Your task to perform on an android device: change timer sound Image 0: 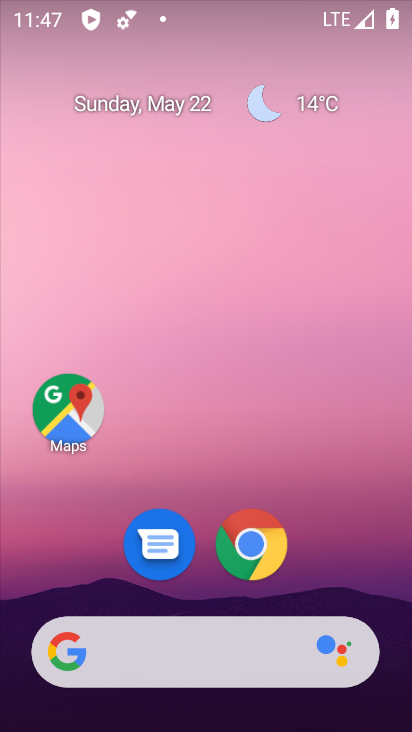
Step 0: drag from (318, 572) to (247, 43)
Your task to perform on an android device: change timer sound Image 1: 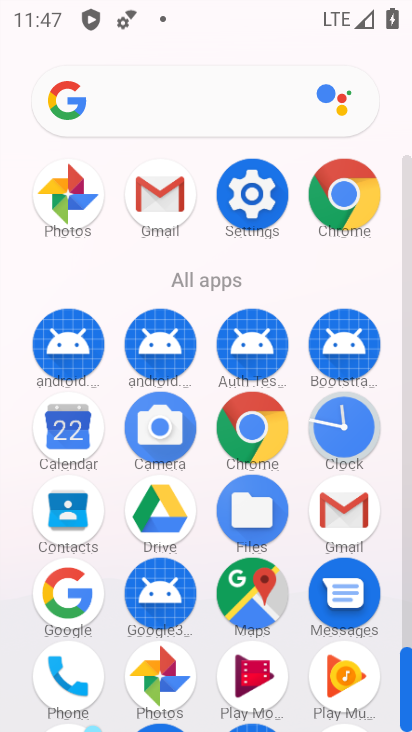
Step 1: press home button
Your task to perform on an android device: change timer sound Image 2: 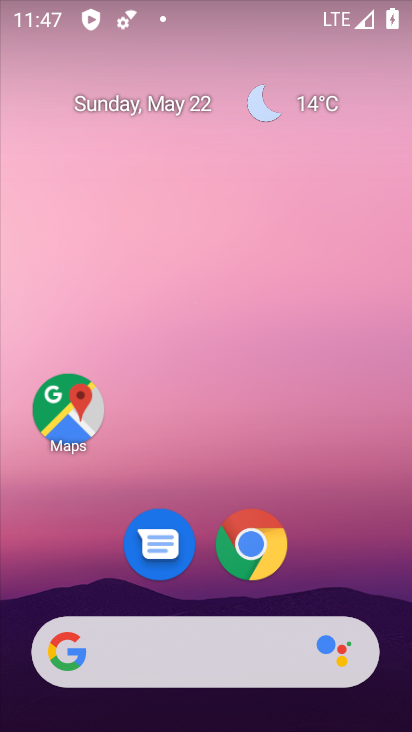
Step 2: drag from (288, 584) to (223, 194)
Your task to perform on an android device: change timer sound Image 3: 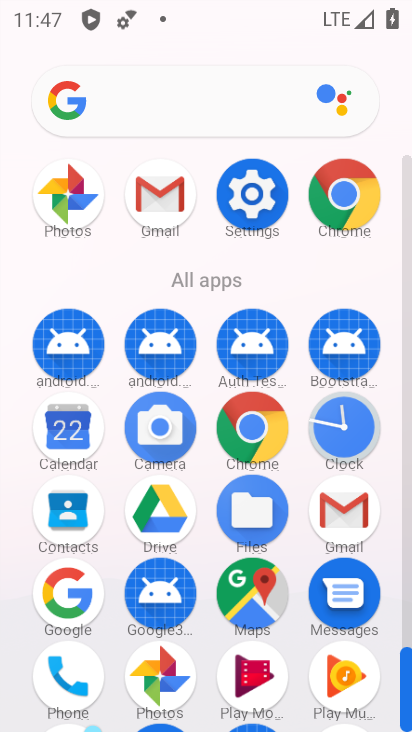
Step 3: click (248, 196)
Your task to perform on an android device: change timer sound Image 4: 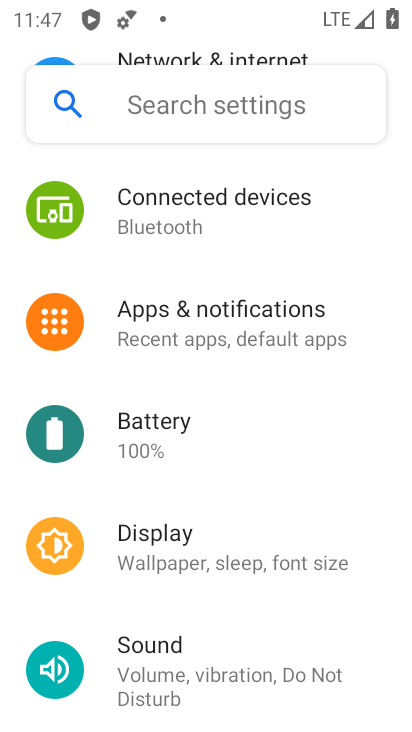
Step 4: drag from (245, 211) to (234, 498)
Your task to perform on an android device: change timer sound Image 5: 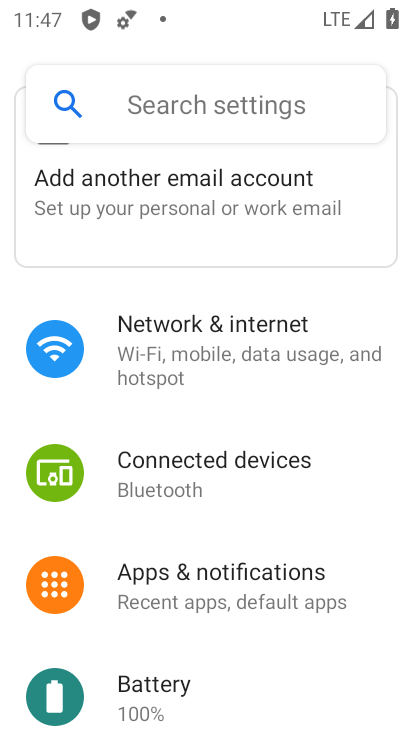
Step 5: drag from (228, 635) to (193, 344)
Your task to perform on an android device: change timer sound Image 6: 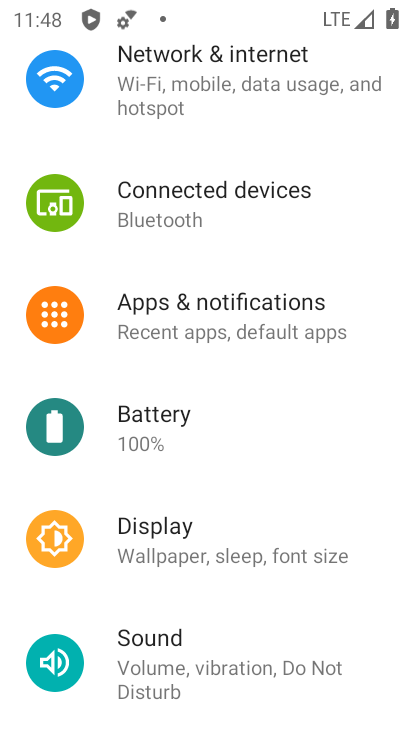
Step 6: drag from (179, 604) to (209, 360)
Your task to perform on an android device: change timer sound Image 7: 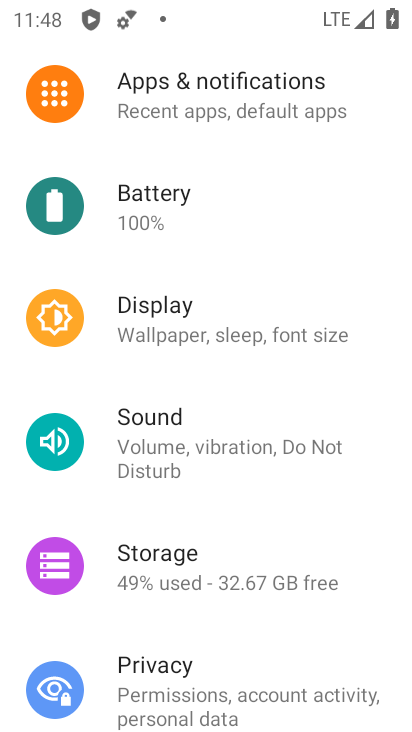
Step 7: drag from (229, 576) to (223, 364)
Your task to perform on an android device: change timer sound Image 8: 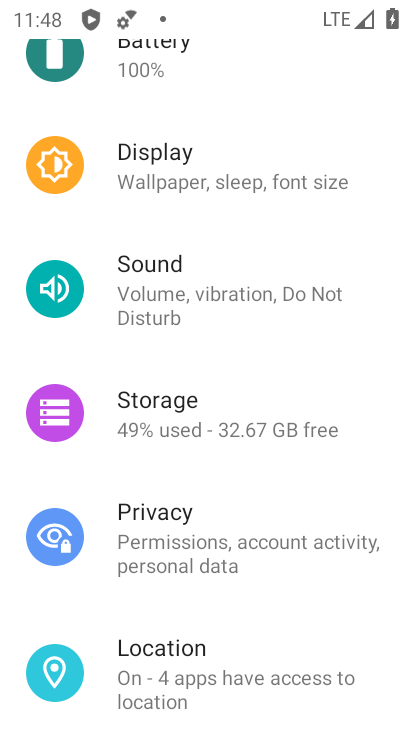
Step 8: drag from (206, 298) to (187, 584)
Your task to perform on an android device: change timer sound Image 9: 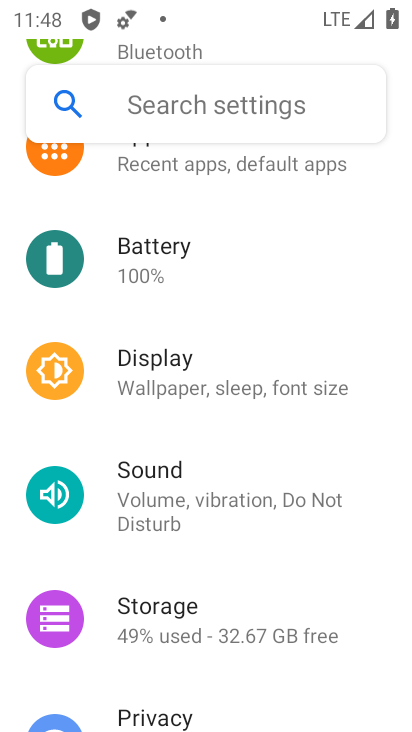
Step 9: drag from (189, 392) to (190, 620)
Your task to perform on an android device: change timer sound Image 10: 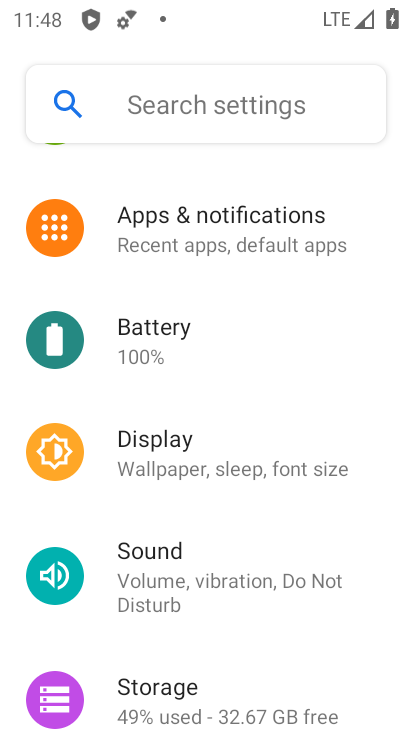
Step 10: drag from (217, 430) to (185, 674)
Your task to perform on an android device: change timer sound Image 11: 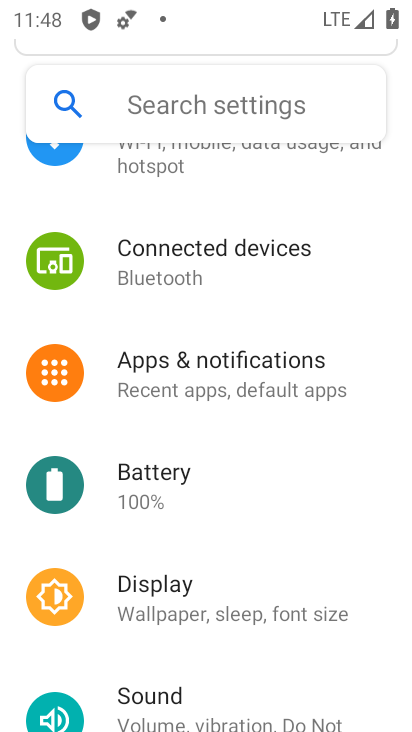
Step 11: drag from (184, 673) to (198, 285)
Your task to perform on an android device: change timer sound Image 12: 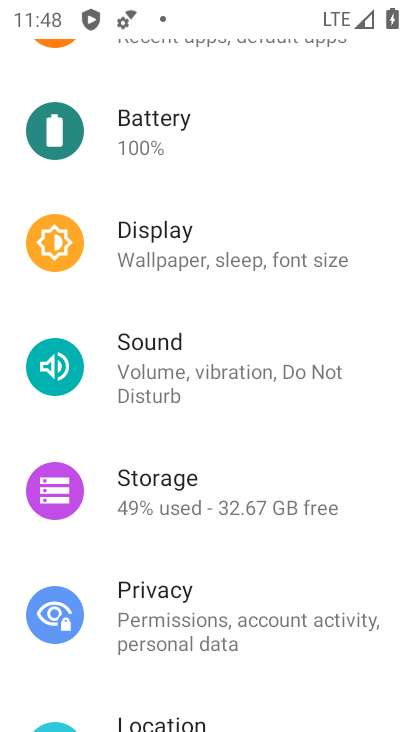
Step 12: drag from (168, 636) to (132, 315)
Your task to perform on an android device: change timer sound Image 13: 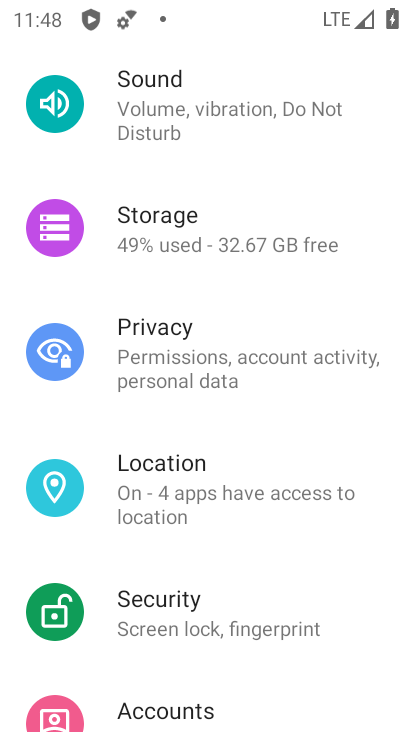
Step 13: drag from (200, 622) to (196, 424)
Your task to perform on an android device: change timer sound Image 14: 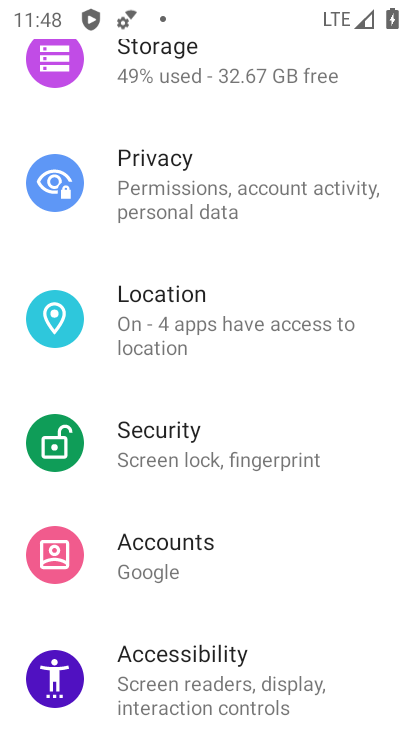
Step 14: drag from (180, 615) to (174, 404)
Your task to perform on an android device: change timer sound Image 15: 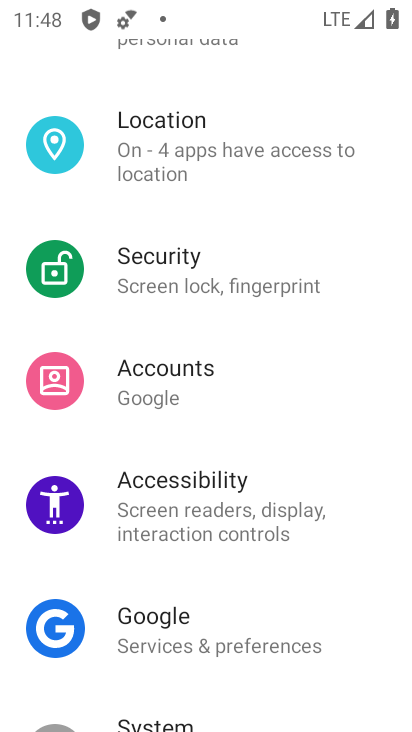
Step 15: drag from (182, 626) to (179, 394)
Your task to perform on an android device: change timer sound Image 16: 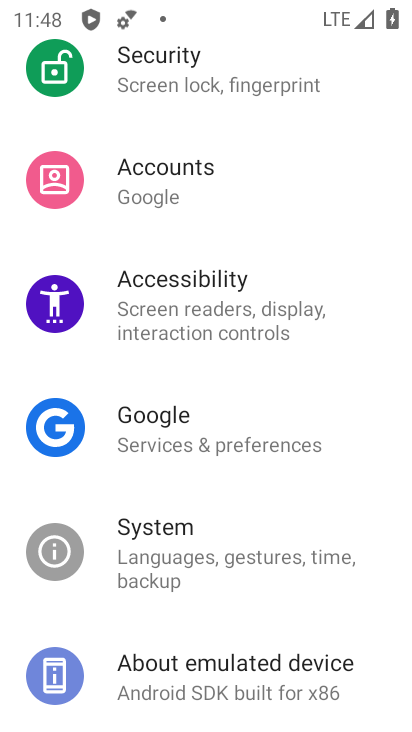
Step 16: drag from (203, 238) to (180, 609)
Your task to perform on an android device: change timer sound Image 17: 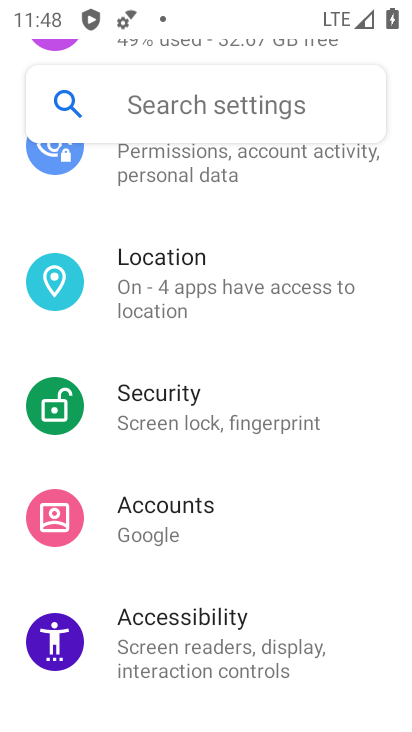
Step 17: click (218, 696)
Your task to perform on an android device: change timer sound Image 18: 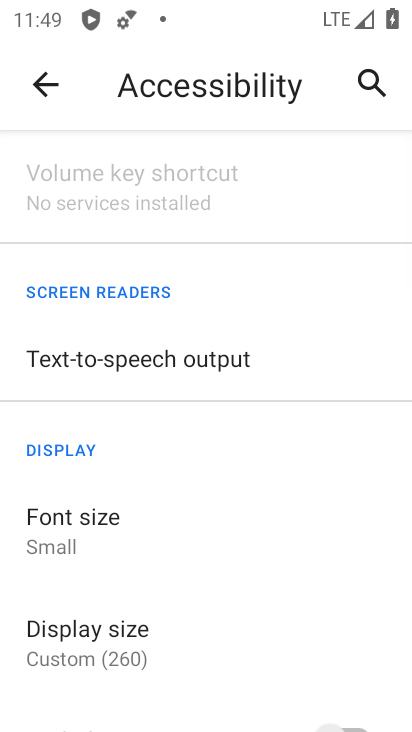
Step 18: press back button
Your task to perform on an android device: change timer sound Image 19: 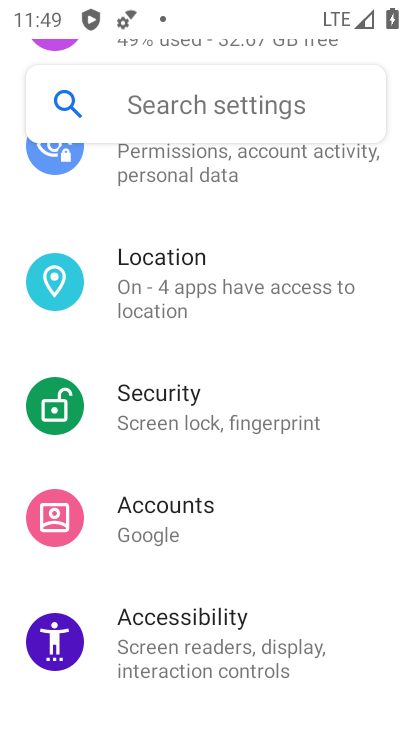
Step 19: drag from (243, 270) to (232, 538)
Your task to perform on an android device: change timer sound Image 20: 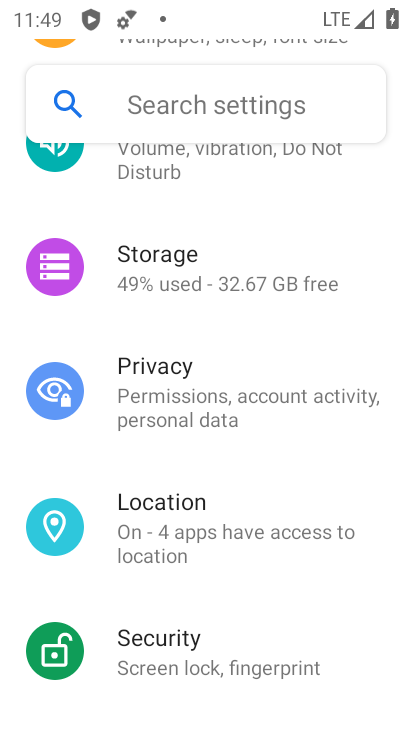
Step 20: drag from (240, 317) to (244, 646)
Your task to perform on an android device: change timer sound Image 21: 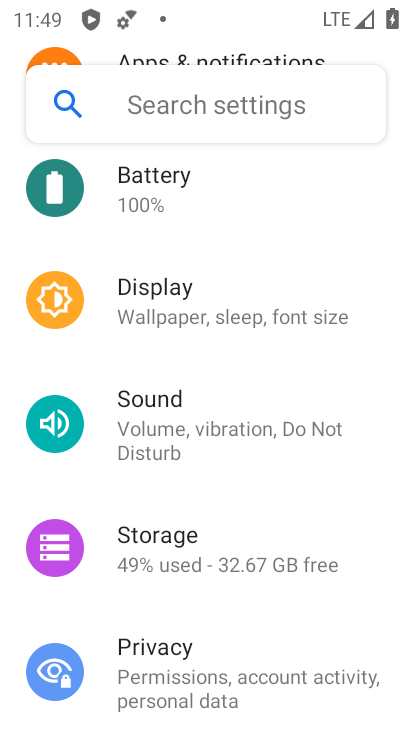
Step 21: drag from (256, 328) to (228, 685)
Your task to perform on an android device: change timer sound Image 22: 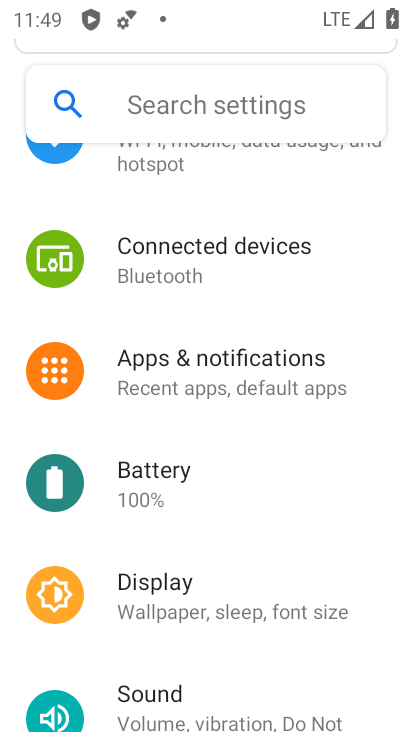
Step 22: press back button
Your task to perform on an android device: change timer sound Image 23: 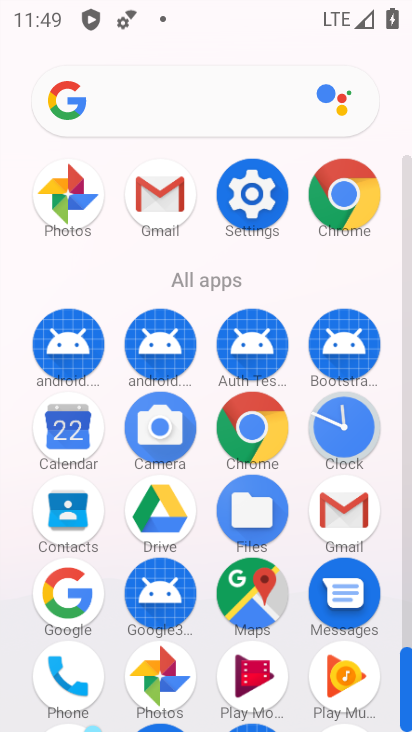
Step 23: click (343, 431)
Your task to perform on an android device: change timer sound Image 24: 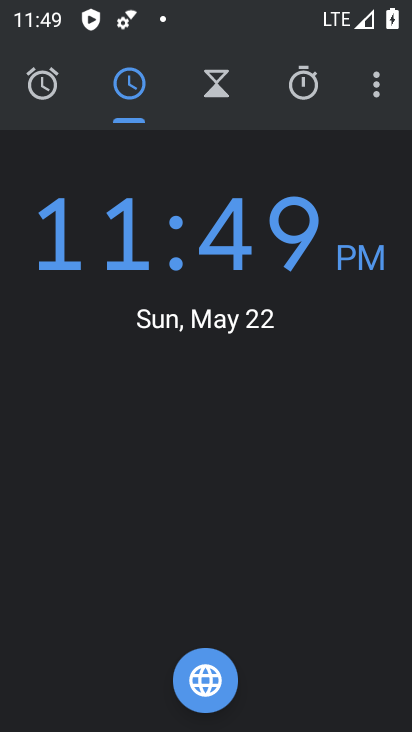
Step 24: click (383, 89)
Your task to perform on an android device: change timer sound Image 25: 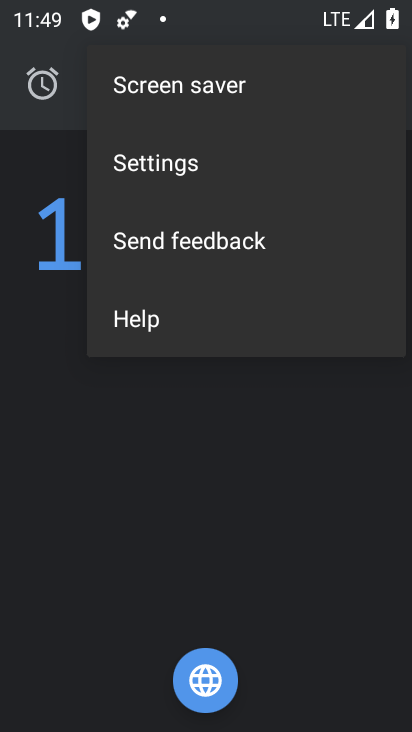
Step 25: click (200, 173)
Your task to perform on an android device: change timer sound Image 26: 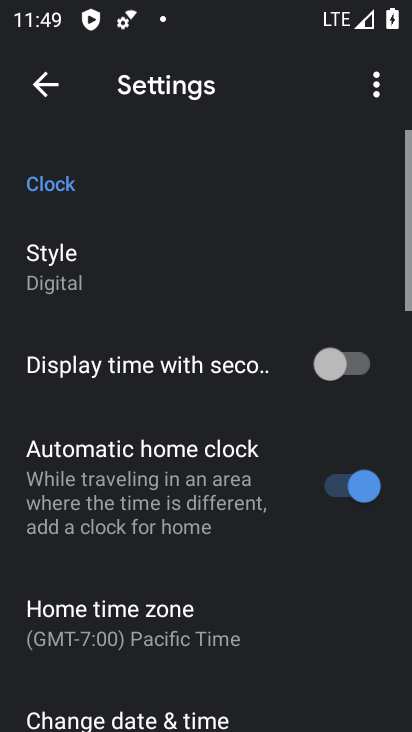
Step 26: drag from (169, 569) to (190, 302)
Your task to perform on an android device: change timer sound Image 27: 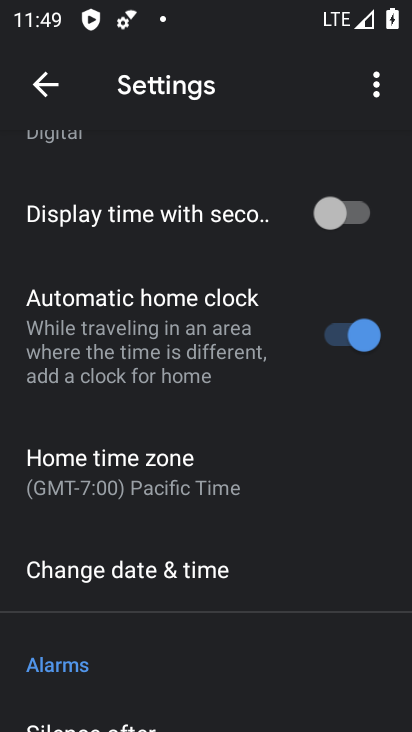
Step 27: drag from (166, 612) to (166, 322)
Your task to perform on an android device: change timer sound Image 28: 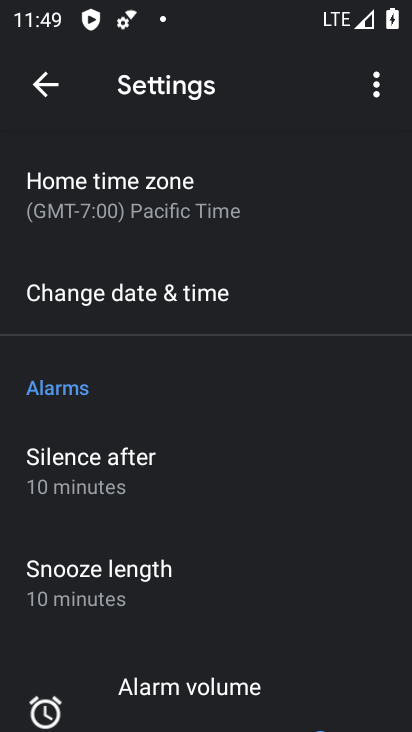
Step 28: drag from (157, 550) to (157, 347)
Your task to perform on an android device: change timer sound Image 29: 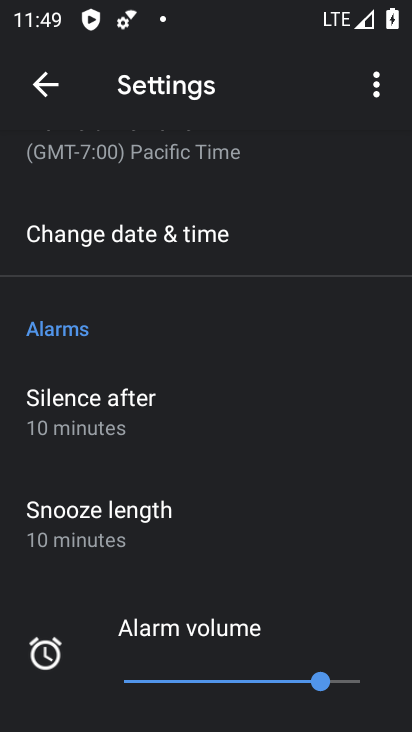
Step 29: drag from (161, 646) to (202, 399)
Your task to perform on an android device: change timer sound Image 30: 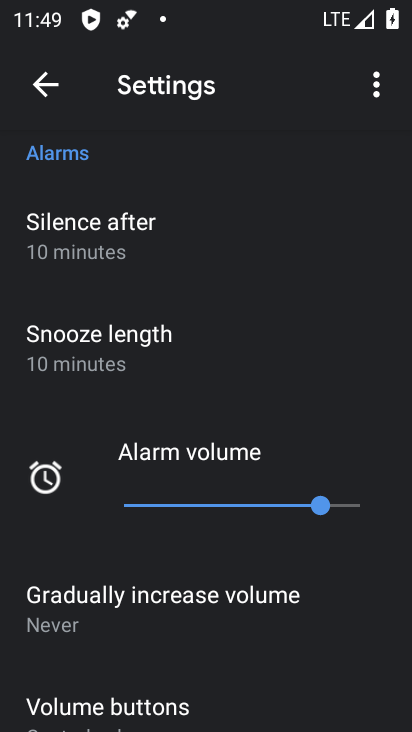
Step 30: drag from (187, 646) to (187, 328)
Your task to perform on an android device: change timer sound Image 31: 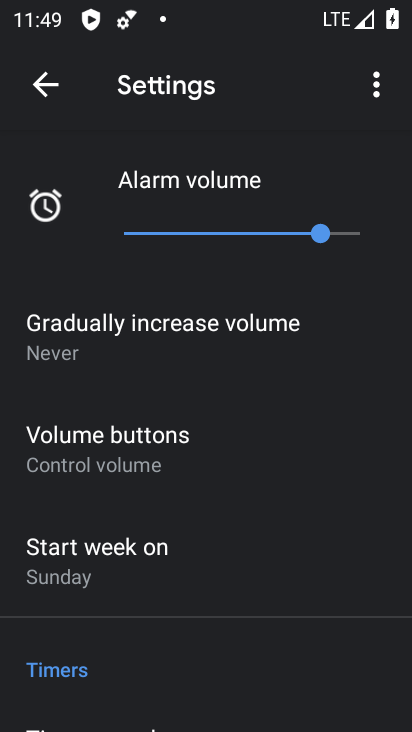
Step 31: drag from (149, 596) to (197, 331)
Your task to perform on an android device: change timer sound Image 32: 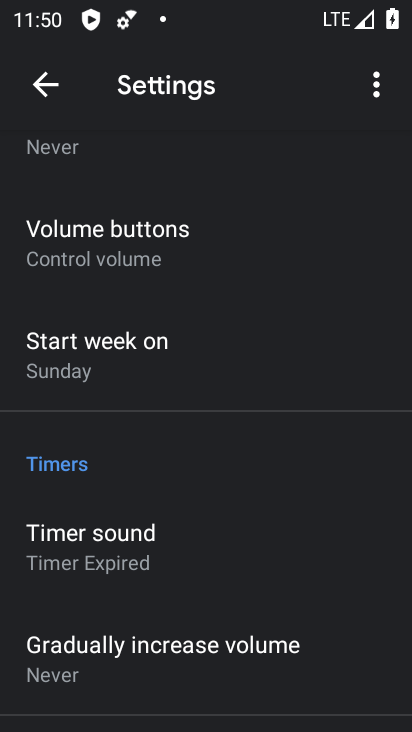
Step 32: drag from (216, 576) to (206, 324)
Your task to perform on an android device: change timer sound Image 33: 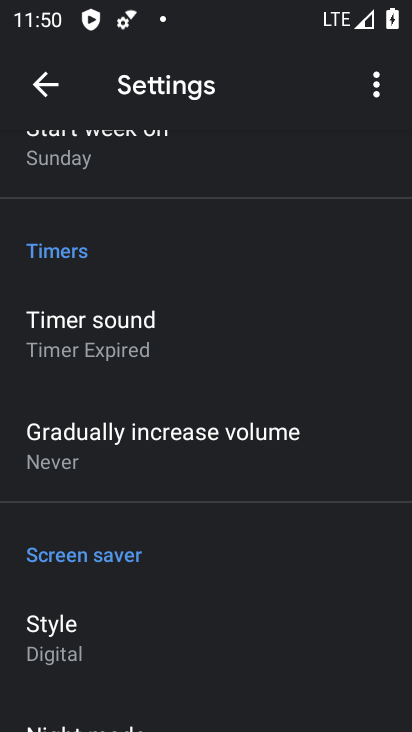
Step 33: click (141, 354)
Your task to perform on an android device: change timer sound Image 34: 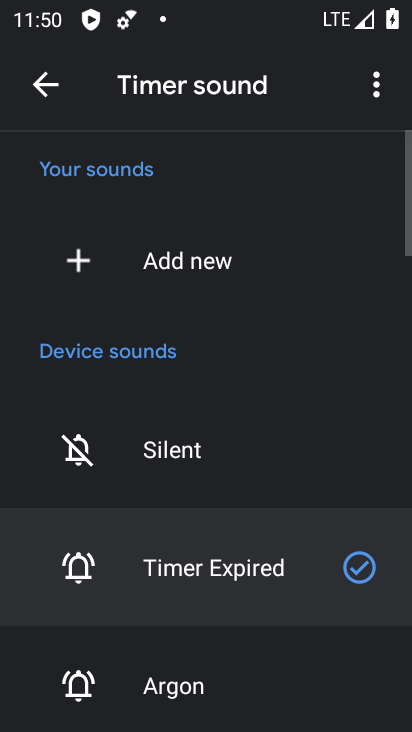
Step 34: click (177, 690)
Your task to perform on an android device: change timer sound Image 35: 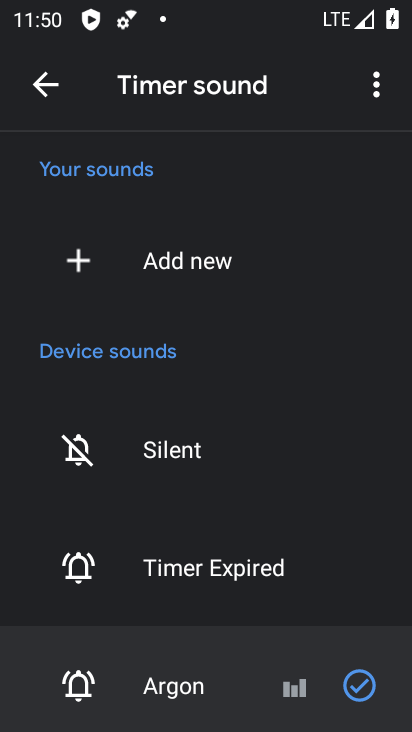
Step 35: task complete